Your task to perform on an android device: Do I have any events this weekend? Image 0: 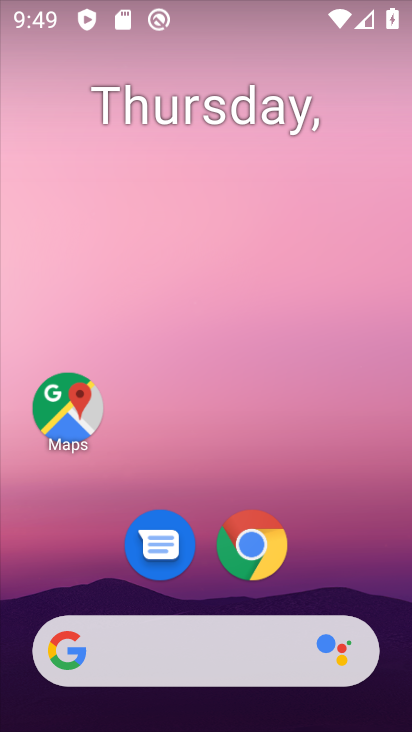
Step 0: drag from (344, 594) to (263, 115)
Your task to perform on an android device: Do I have any events this weekend? Image 1: 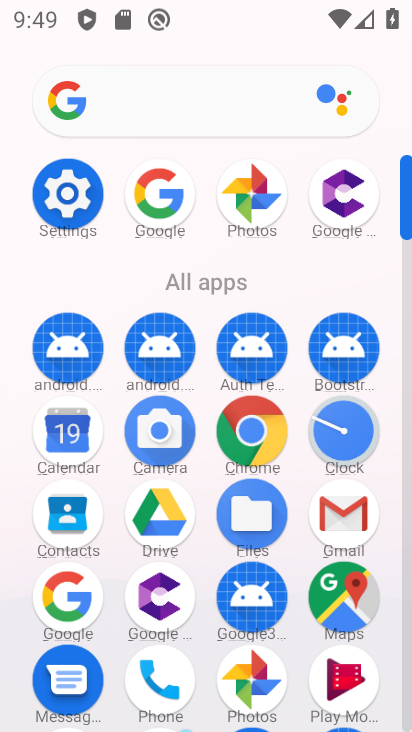
Step 1: click (69, 433)
Your task to perform on an android device: Do I have any events this weekend? Image 2: 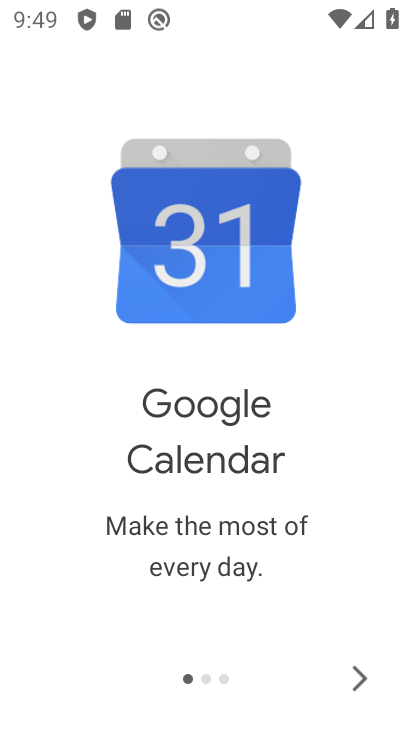
Step 2: click (361, 676)
Your task to perform on an android device: Do I have any events this weekend? Image 3: 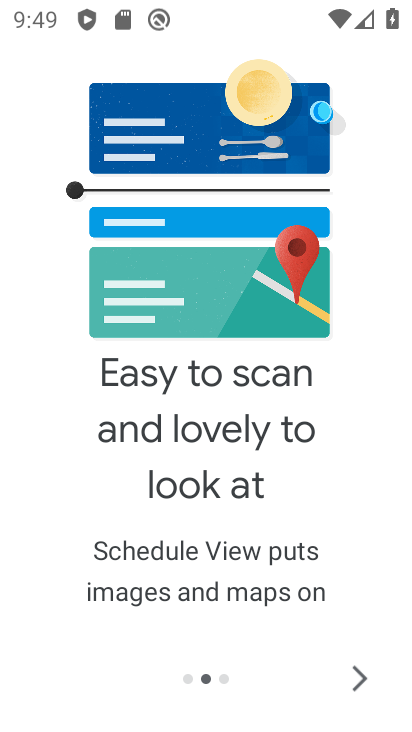
Step 3: click (361, 676)
Your task to perform on an android device: Do I have any events this weekend? Image 4: 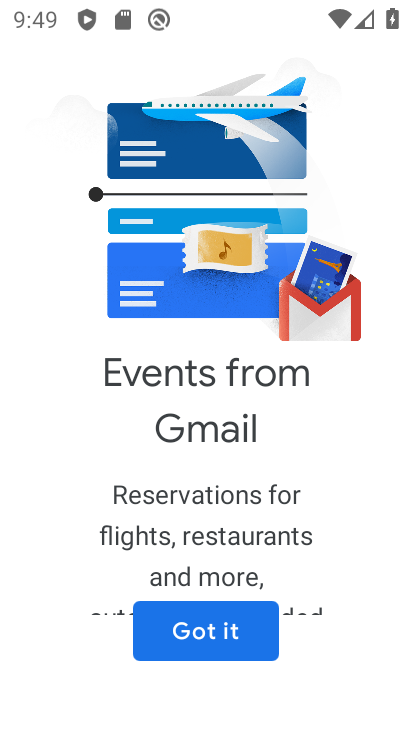
Step 4: click (219, 631)
Your task to perform on an android device: Do I have any events this weekend? Image 5: 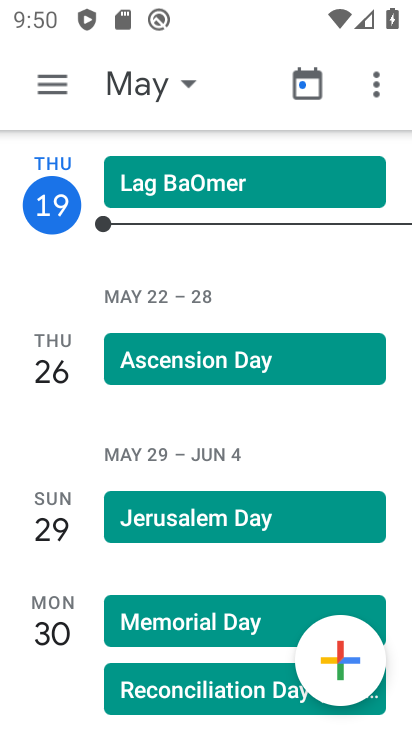
Step 5: click (307, 82)
Your task to perform on an android device: Do I have any events this weekend? Image 6: 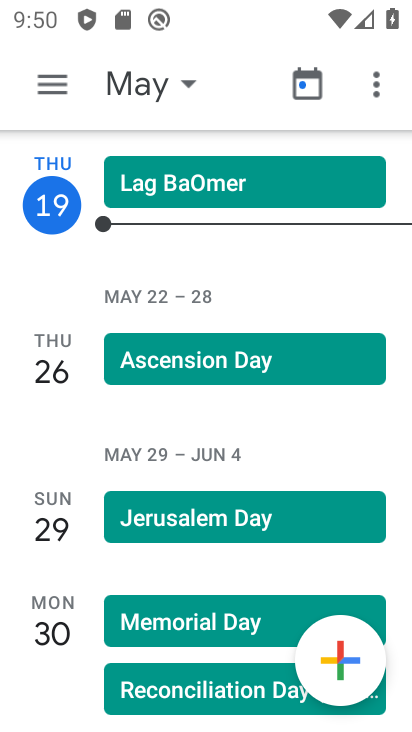
Step 6: click (177, 79)
Your task to perform on an android device: Do I have any events this weekend? Image 7: 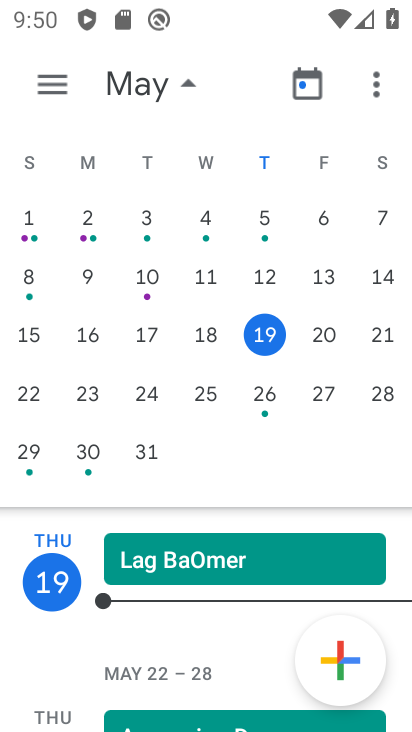
Step 7: click (60, 90)
Your task to perform on an android device: Do I have any events this weekend? Image 8: 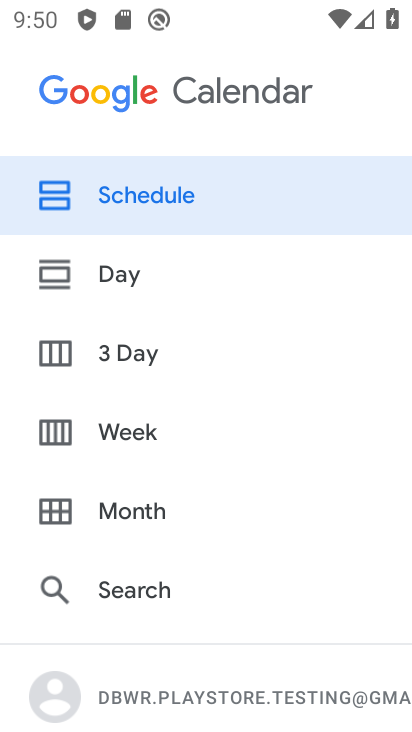
Step 8: click (132, 179)
Your task to perform on an android device: Do I have any events this weekend? Image 9: 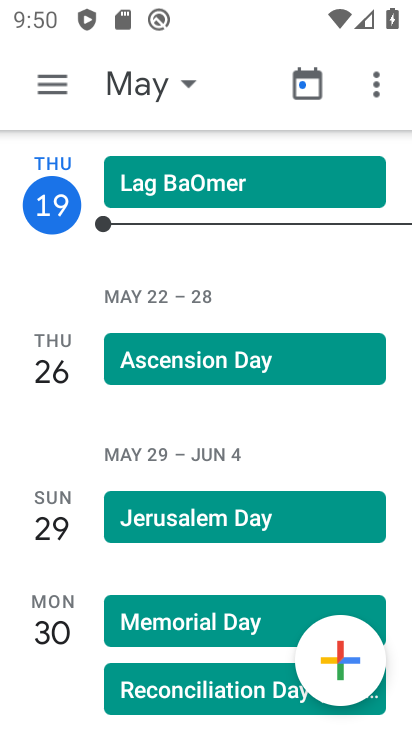
Step 9: task complete